Your task to perform on an android device: check google app version Image 0: 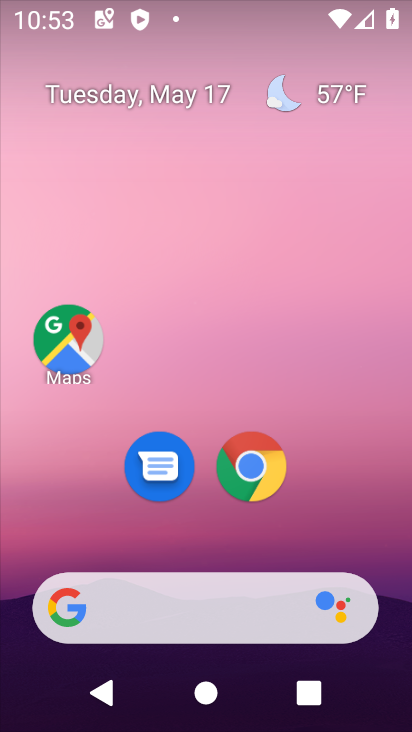
Step 0: press home button
Your task to perform on an android device: check google app version Image 1: 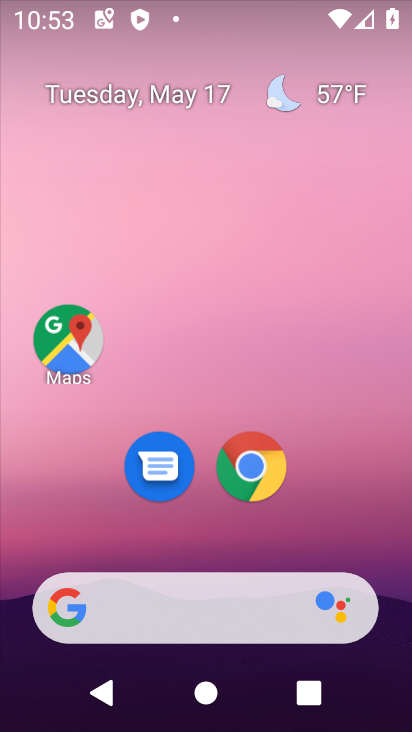
Step 1: drag from (238, 661) to (198, 157)
Your task to perform on an android device: check google app version Image 2: 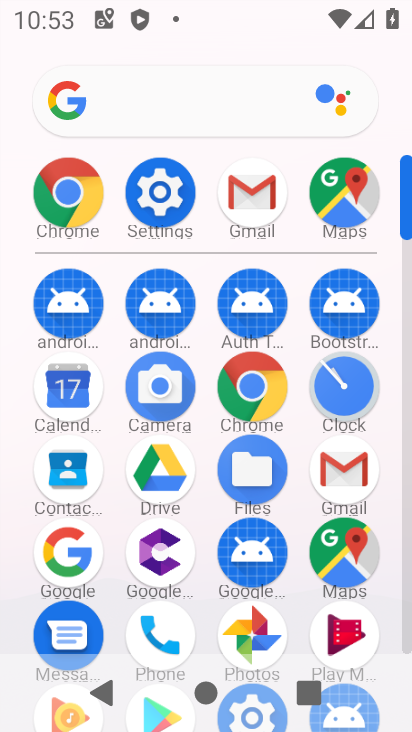
Step 2: click (83, 219)
Your task to perform on an android device: check google app version Image 3: 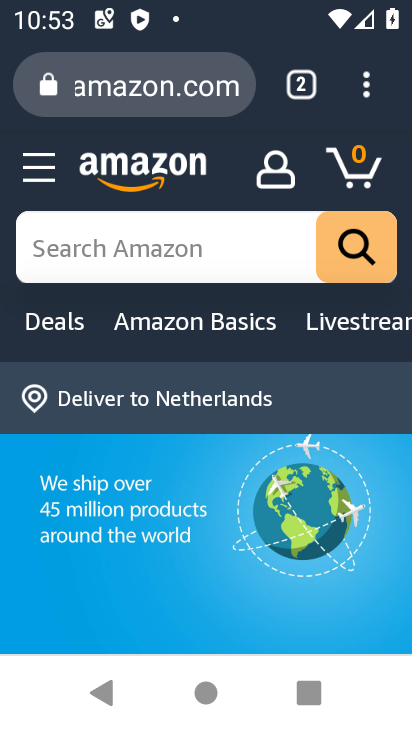
Step 3: click (358, 111)
Your task to perform on an android device: check google app version Image 4: 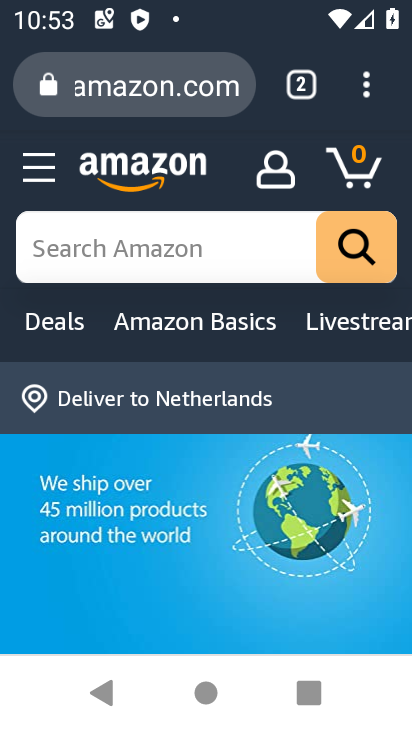
Step 4: click (359, 98)
Your task to perform on an android device: check google app version Image 5: 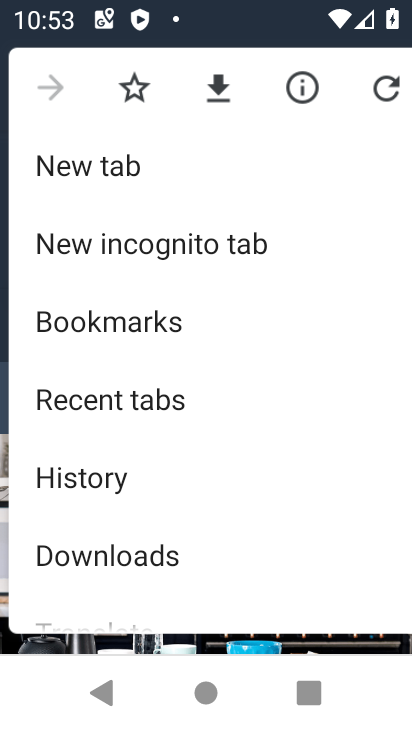
Step 5: drag from (180, 514) to (248, 264)
Your task to perform on an android device: check google app version Image 6: 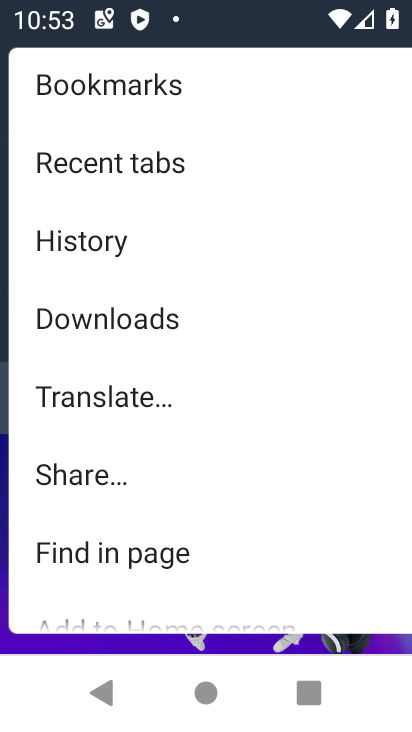
Step 6: drag from (167, 473) to (258, 244)
Your task to perform on an android device: check google app version Image 7: 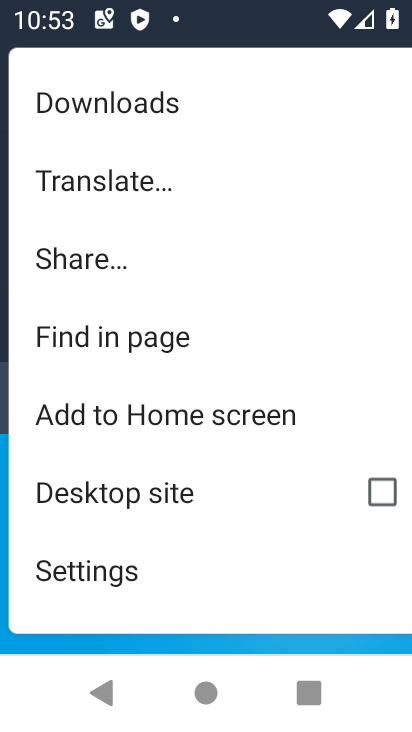
Step 7: click (118, 580)
Your task to perform on an android device: check google app version Image 8: 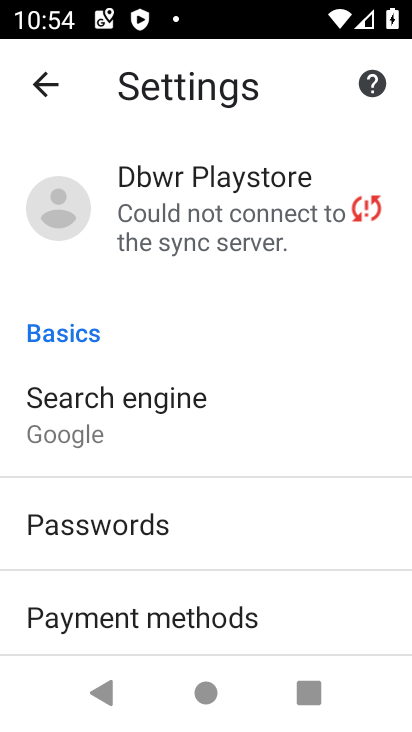
Step 8: drag from (331, 593) to (410, 221)
Your task to perform on an android device: check google app version Image 9: 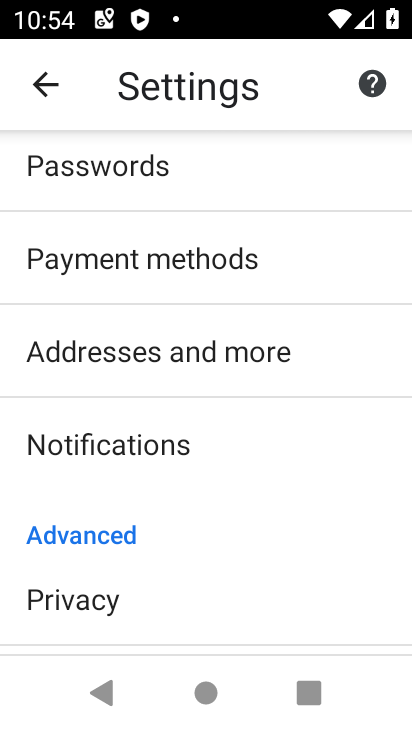
Step 9: drag from (173, 649) to (298, 294)
Your task to perform on an android device: check google app version Image 10: 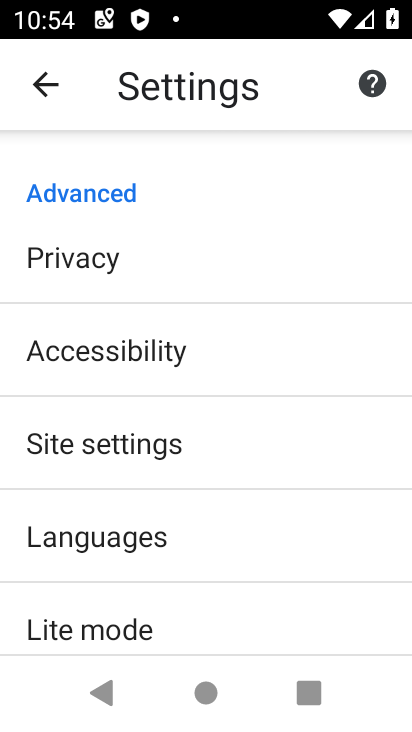
Step 10: drag from (190, 552) to (245, 333)
Your task to perform on an android device: check google app version Image 11: 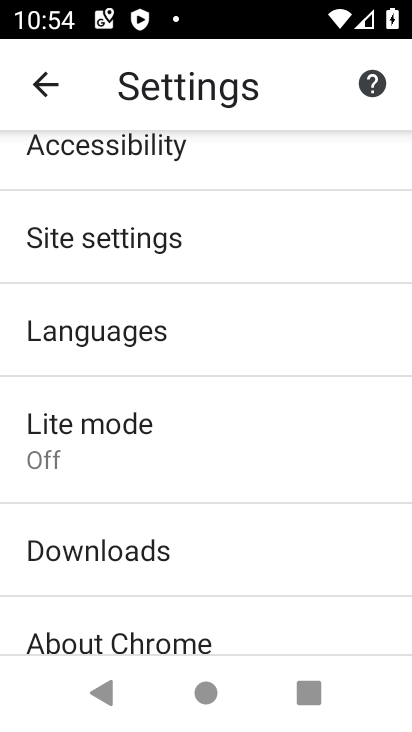
Step 11: drag from (154, 578) to (246, 253)
Your task to perform on an android device: check google app version Image 12: 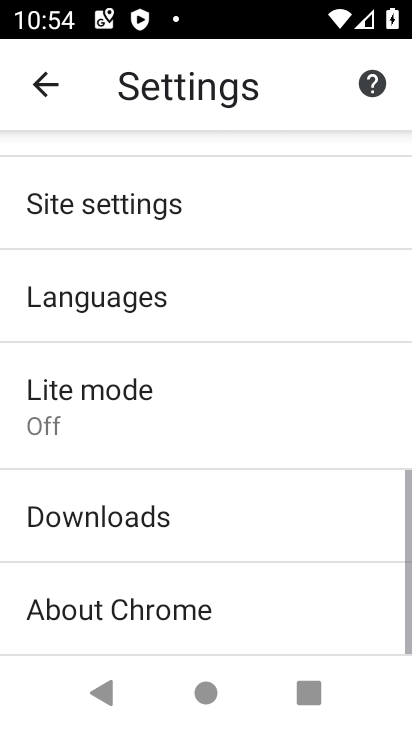
Step 12: click (99, 607)
Your task to perform on an android device: check google app version Image 13: 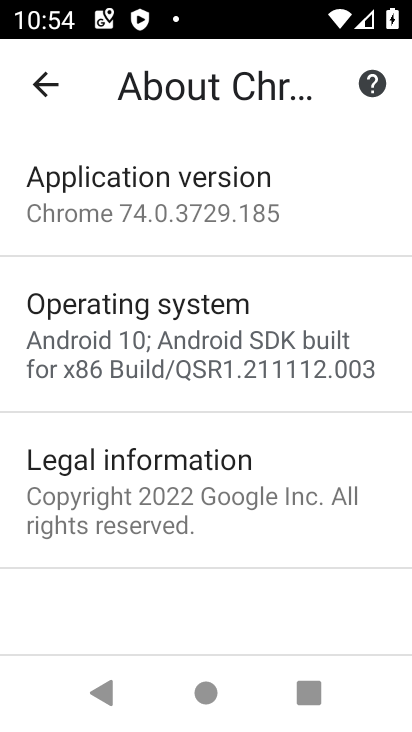
Step 13: click (179, 223)
Your task to perform on an android device: check google app version Image 14: 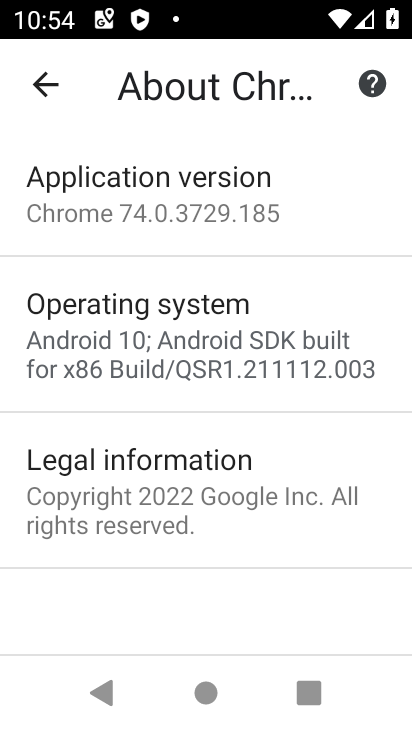
Step 14: task complete